Your task to perform on an android device: Open calendar and show me the first week of next month Image 0: 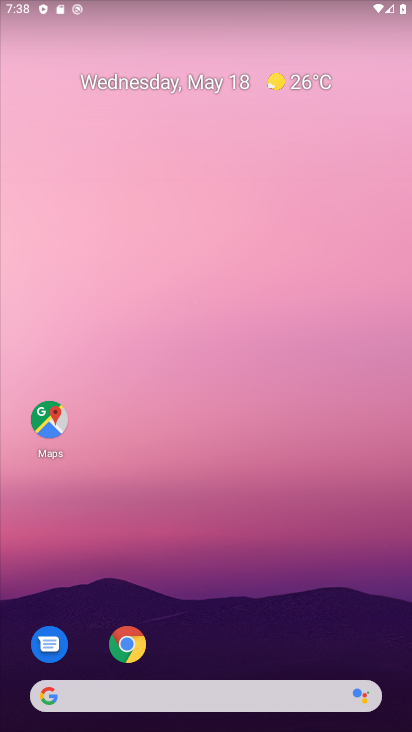
Step 0: drag from (364, 501) to (336, 375)
Your task to perform on an android device: Open calendar and show me the first week of next month Image 1: 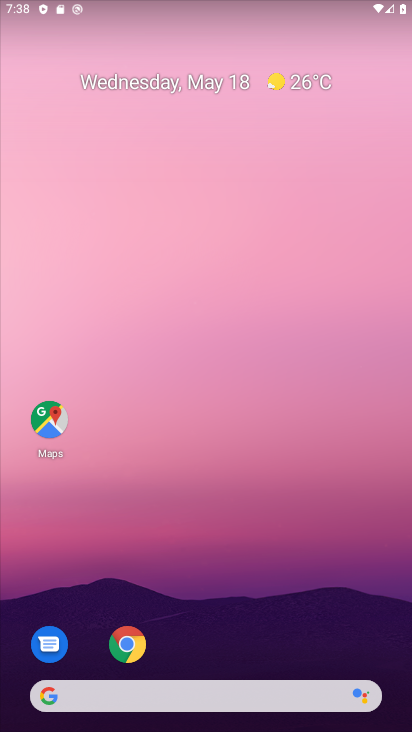
Step 1: click (347, 236)
Your task to perform on an android device: Open calendar and show me the first week of next month Image 2: 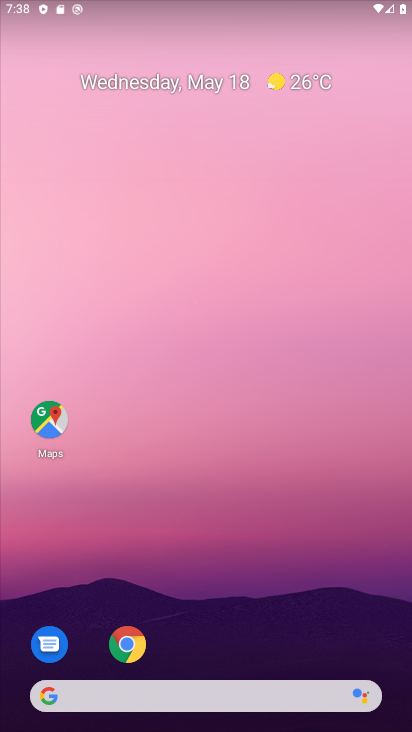
Step 2: drag from (402, 694) to (359, 276)
Your task to perform on an android device: Open calendar and show me the first week of next month Image 3: 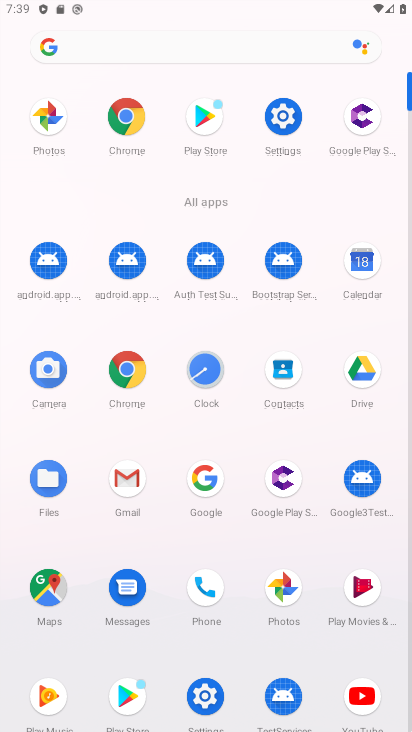
Step 3: click (355, 268)
Your task to perform on an android device: Open calendar and show me the first week of next month Image 4: 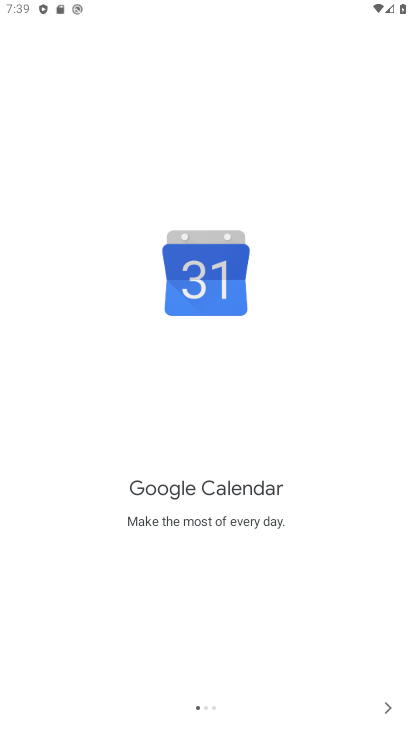
Step 4: click (385, 707)
Your task to perform on an android device: Open calendar and show me the first week of next month Image 5: 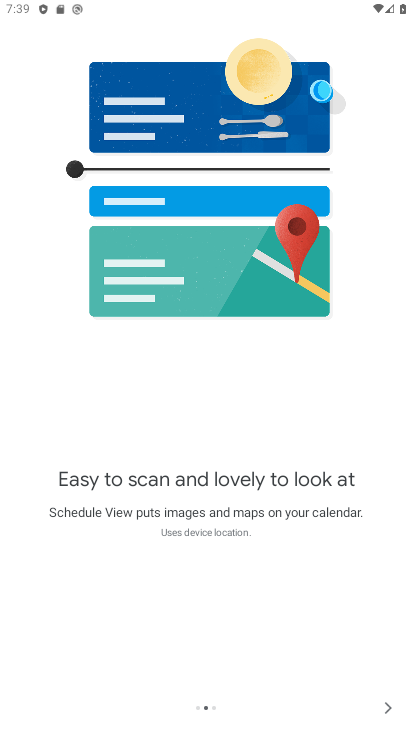
Step 5: click (385, 707)
Your task to perform on an android device: Open calendar and show me the first week of next month Image 6: 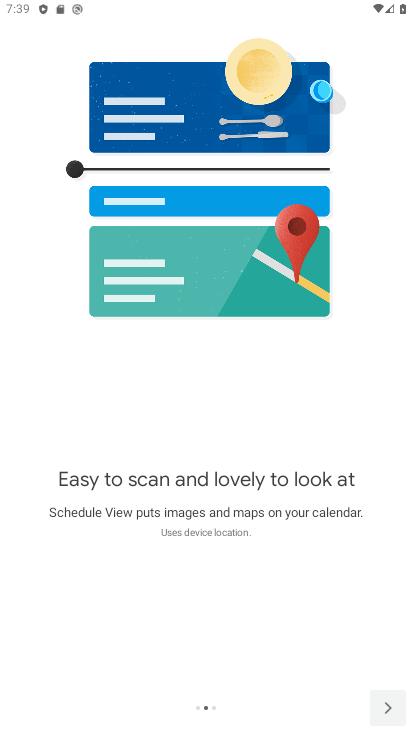
Step 6: click (385, 702)
Your task to perform on an android device: Open calendar and show me the first week of next month Image 7: 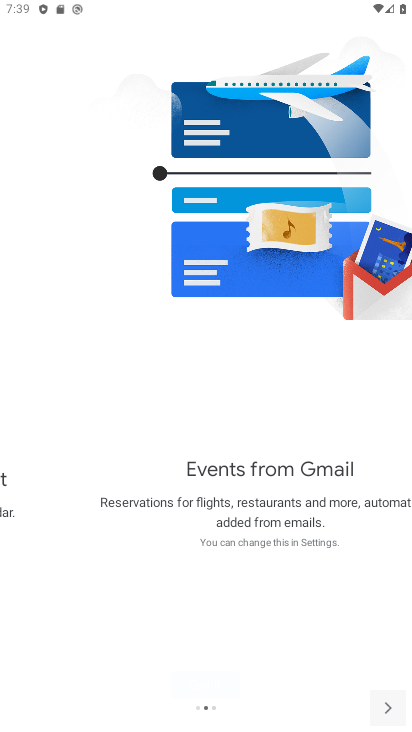
Step 7: click (385, 702)
Your task to perform on an android device: Open calendar and show me the first week of next month Image 8: 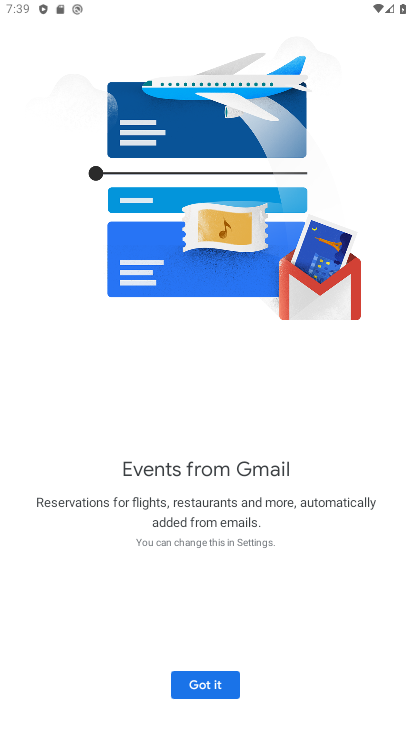
Step 8: click (385, 702)
Your task to perform on an android device: Open calendar and show me the first week of next month Image 9: 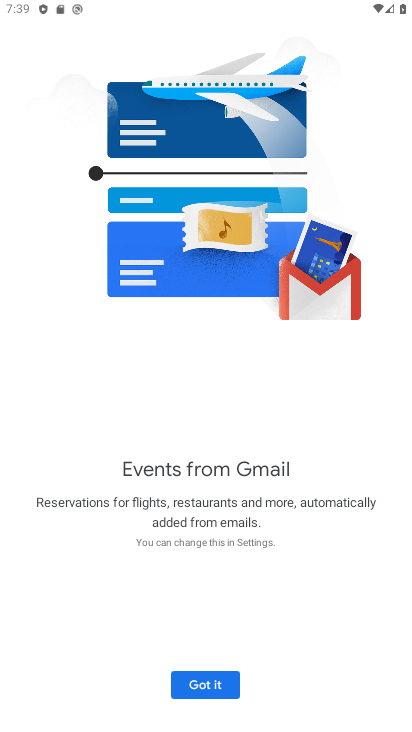
Step 9: click (223, 683)
Your task to perform on an android device: Open calendar and show me the first week of next month Image 10: 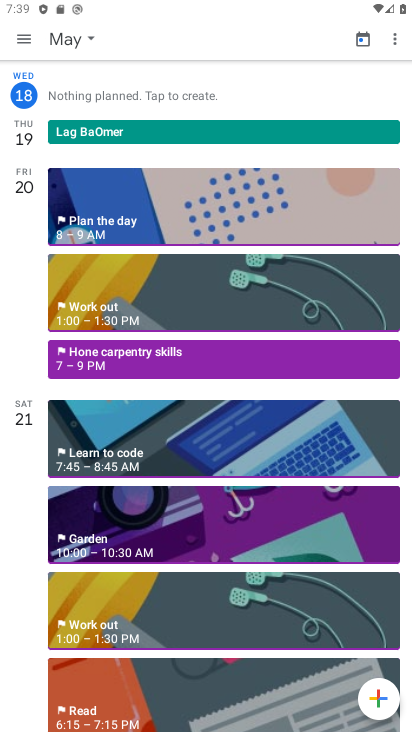
Step 10: click (88, 40)
Your task to perform on an android device: Open calendar and show me the first week of next month Image 11: 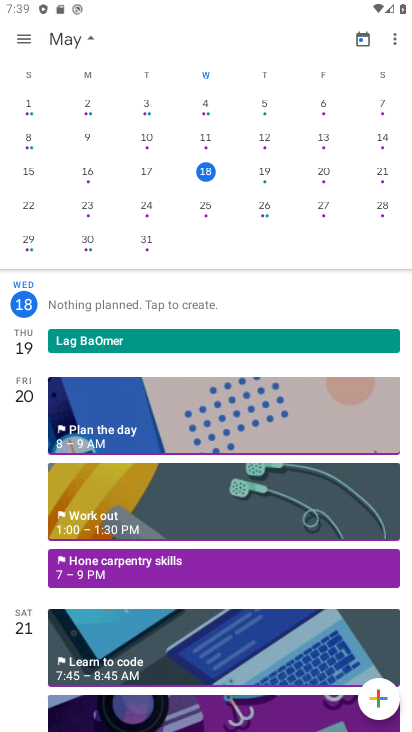
Step 11: click (91, 34)
Your task to perform on an android device: Open calendar and show me the first week of next month Image 12: 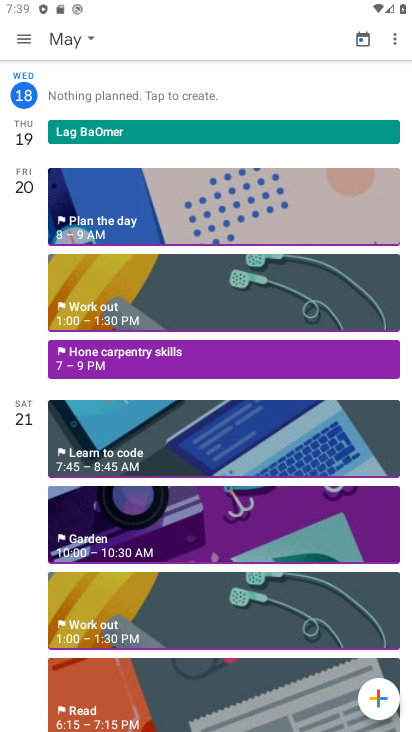
Step 12: drag from (161, 139) to (72, 128)
Your task to perform on an android device: Open calendar and show me the first week of next month Image 13: 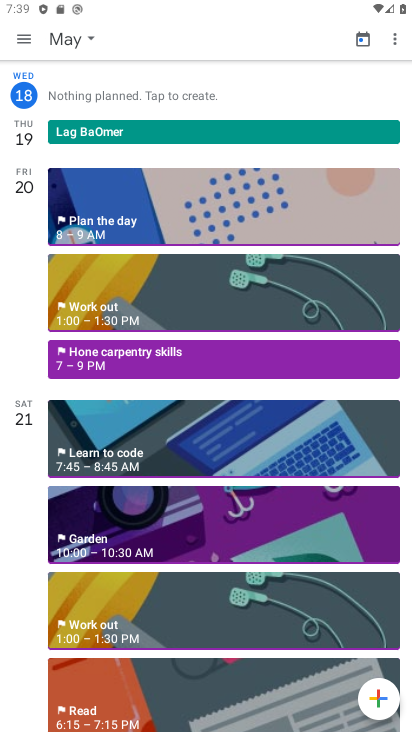
Step 13: click (86, 36)
Your task to perform on an android device: Open calendar and show me the first week of next month Image 14: 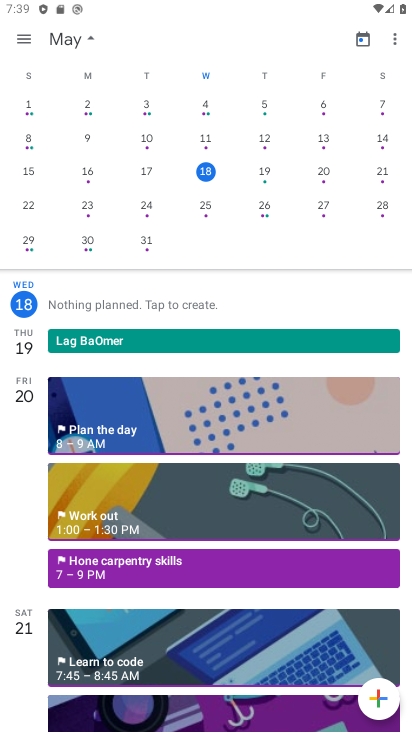
Step 14: drag from (399, 156) to (174, 139)
Your task to perform on an android device: Open calendar and show me the first week of next month Image 15: 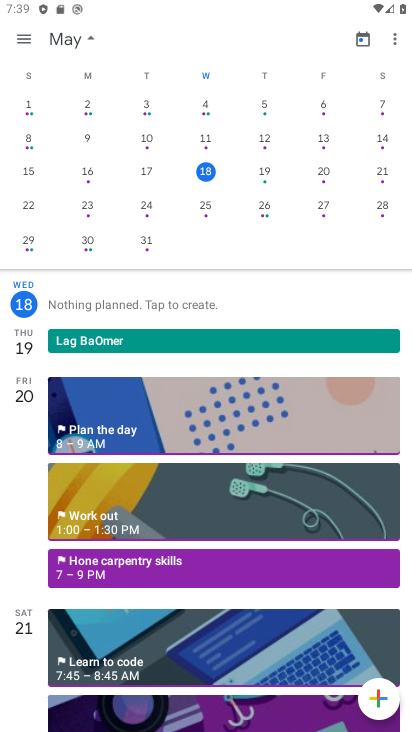
Step 15: drag from (403, 164) to (77, 118)
Your task to perform on an android device: Open calendar and show me the first week of next month Image 16: 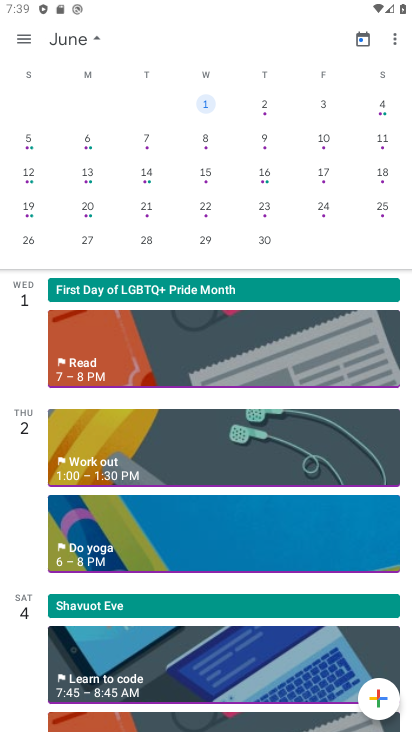
Step 16: click (205, 137)
Your task to perform on an android device: Open calendar and show me the first week of next month Image 17: 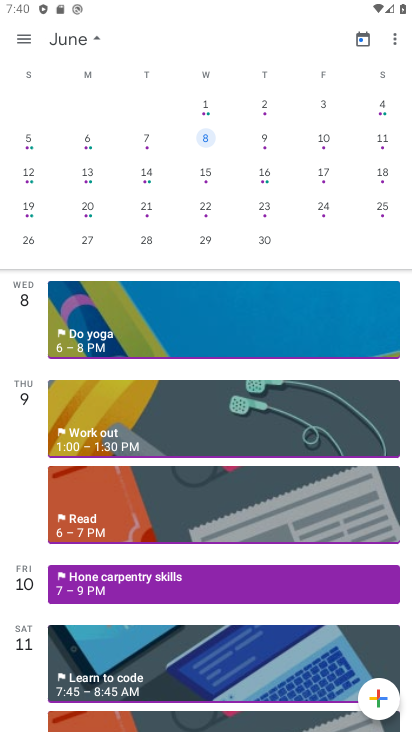
Step 17: click (267, 100)
Your task to perform on an android device: Open calendar and show me the first week of next month Image 18: 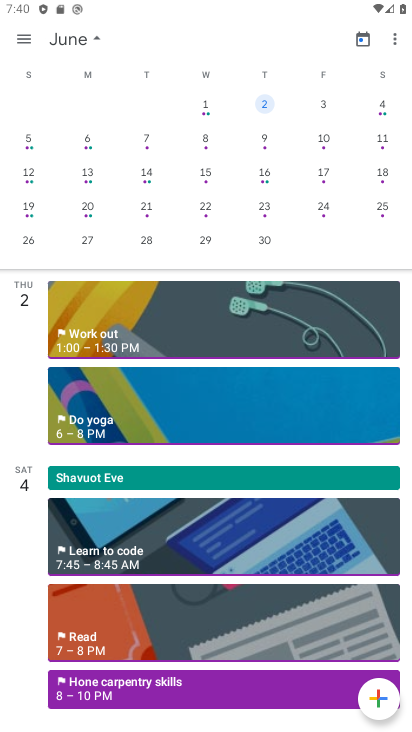
Step 18: click (16, 35)
Your task to perform on an android device: Open calendar and show me the first week of next month Image 19: 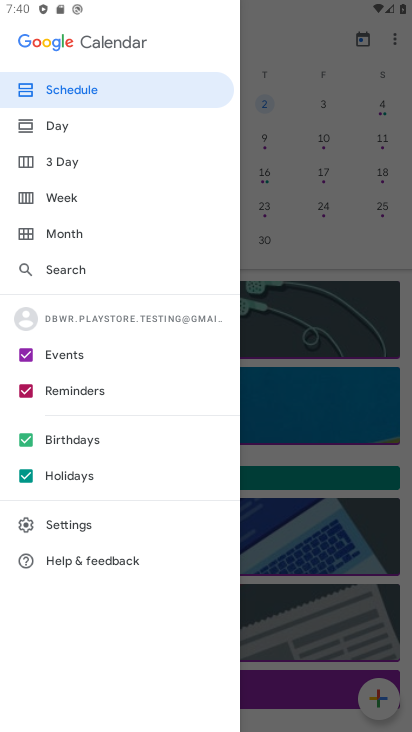
Step 19: click (66, 191)
Your task to perform on an android device: Open calendar and show me the first week of next month Image 20: 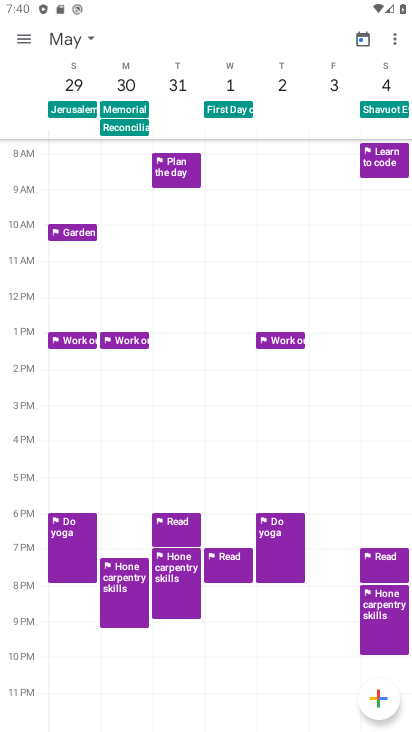
Step 20: task complete